Your task to perform on an android device: Open ESPN.com Image 0: 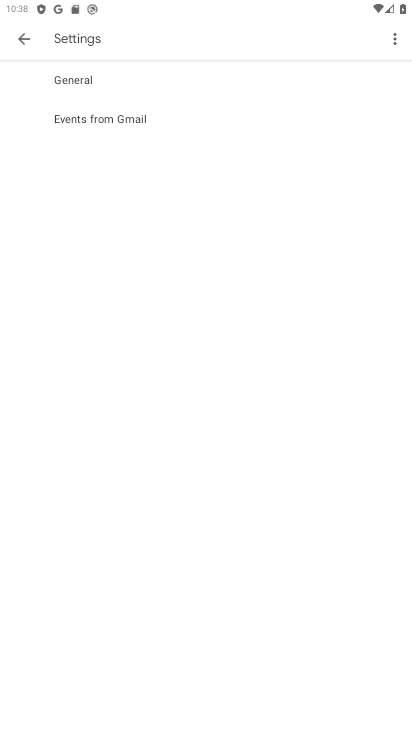
Step 0: press home button
Your task to perform on an android device: Open ESPN.com Image 1: 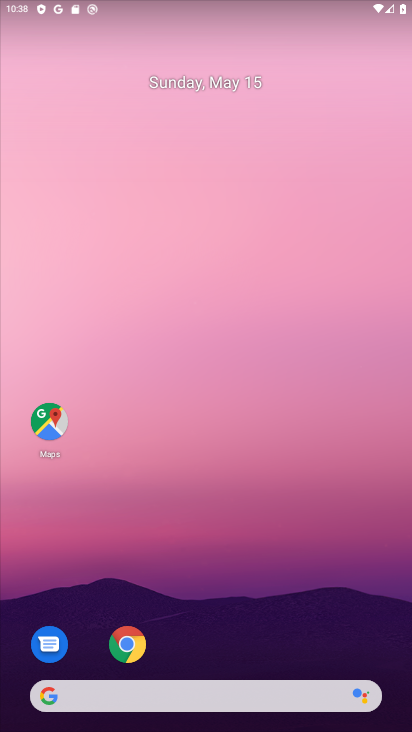
Step 1: drag from (255, 635) to (213, 187)
Your task to perform on an android device: Open ESPN.com Image 2: 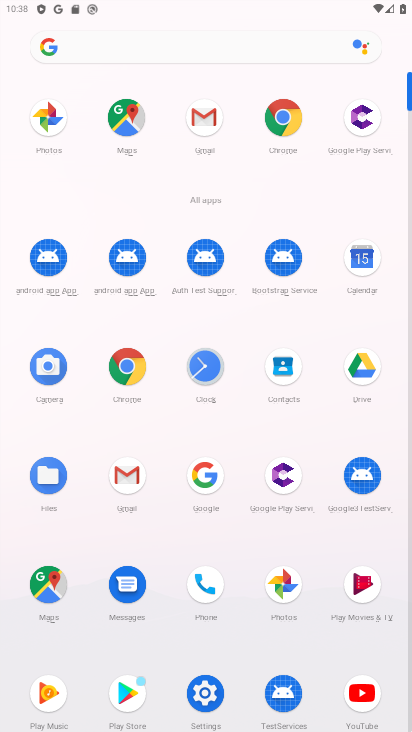
Step 2: click (283, 120)
Your task to perform on an android device: Open ESPN.com Image 3: 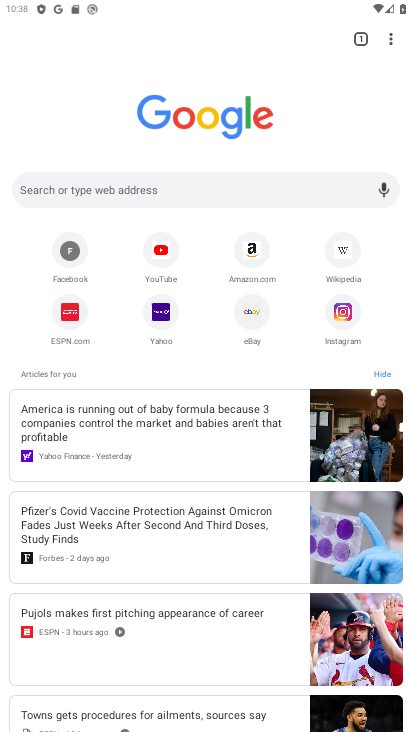
Step 3: click (78, 325)
Your task to perform on an android device: Open ESPN.com Image 4: 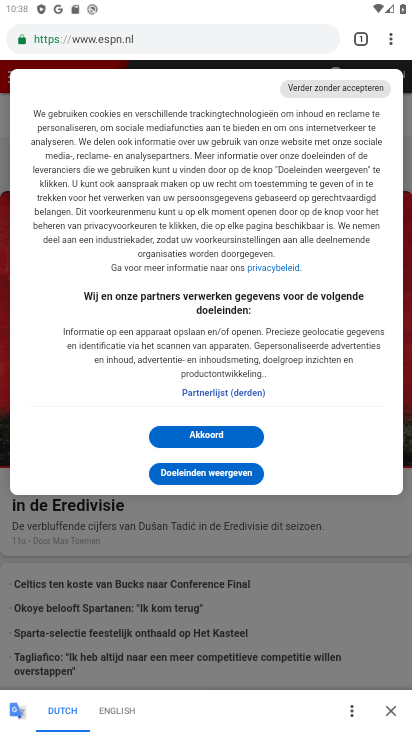
Step 4: task complete